Your task to perform on an android device: turn off improve location accuracy Image 0: 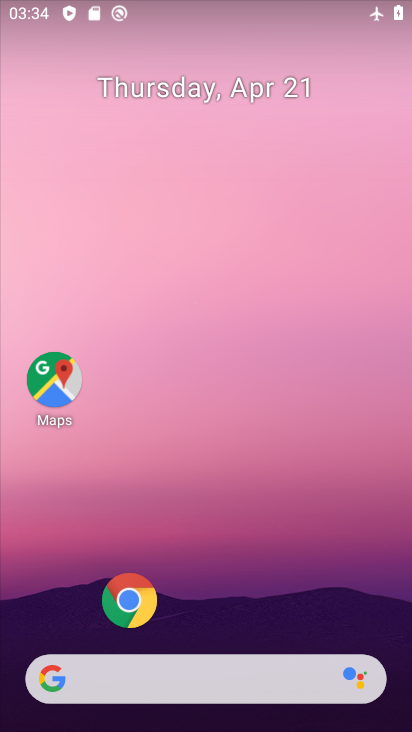
Step 0: drag from (229, 535) to (209, 159)
Your task to perform on an android device: turn off improve location accuracy Image 1: 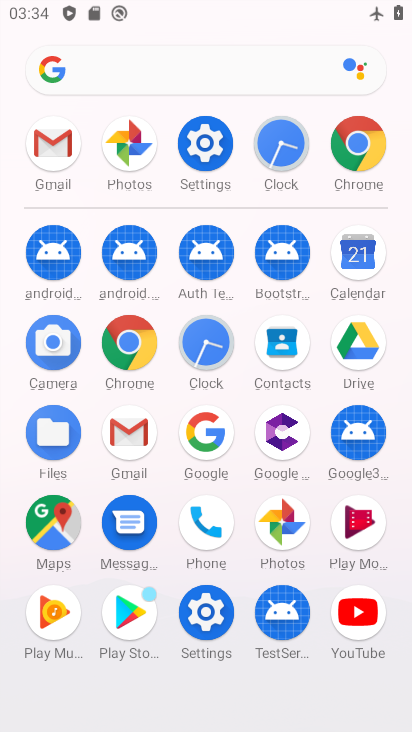
Step 1: click (201, 171)
Your task to perform on an android device: turn off improve location accuracy Image 2: 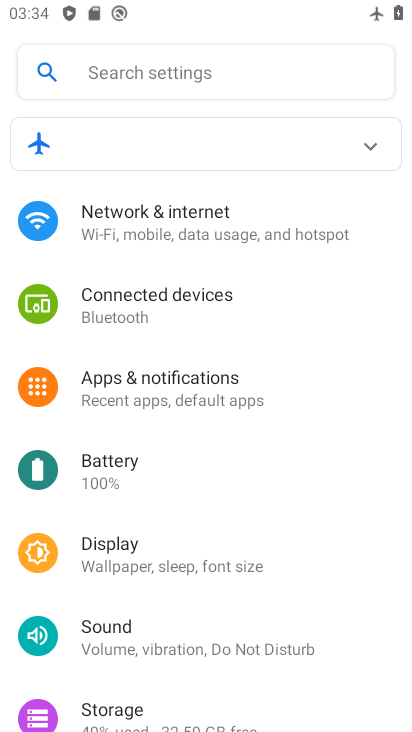
Step 2: drag from (178, 522) to (217, 231)
Your task to perform on an android device: turn off improve location accuracy Image 3: 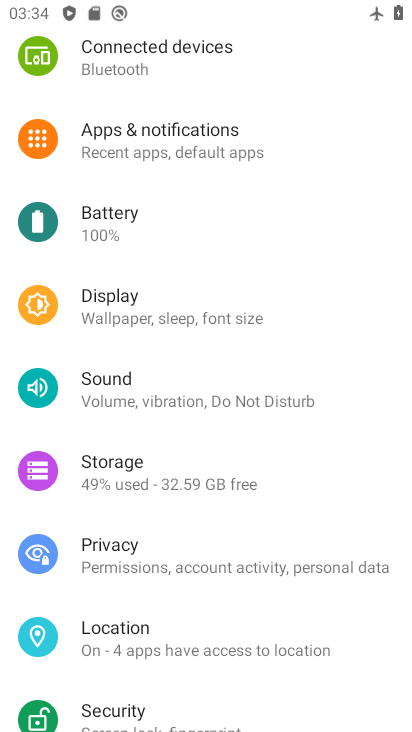
Step 3: click (172, 644)
Your task to perform on an android device: turn off improve location accuracy Image 4: 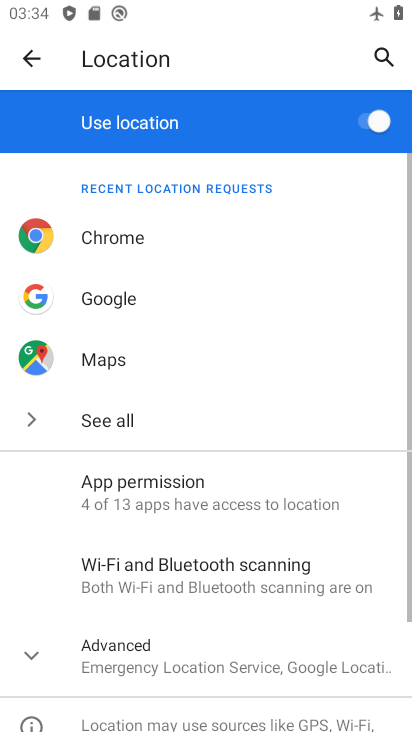
Step 4: drag from (175, 613) to (230, 316)
Your task to perform on an android device: turn off improve location accuracy Image 5: 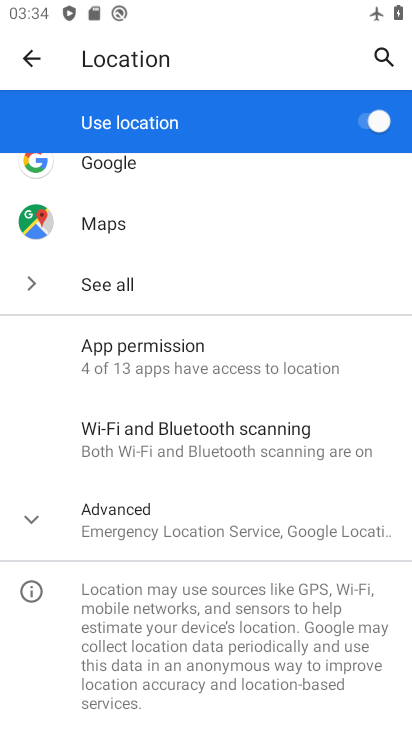
Step 5: click (169, 522)
Your task to perform on an android device: turn off improve location accuracy Image 6: 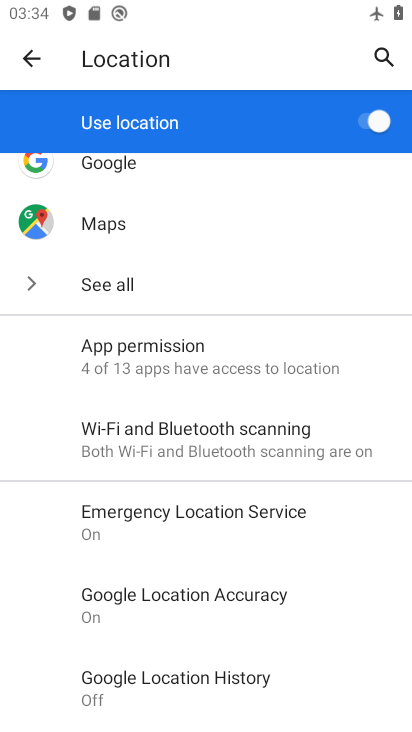
Step 6: click (244, 612)
Your task to perform on an android device: turn off improve location accuracy Image 7: 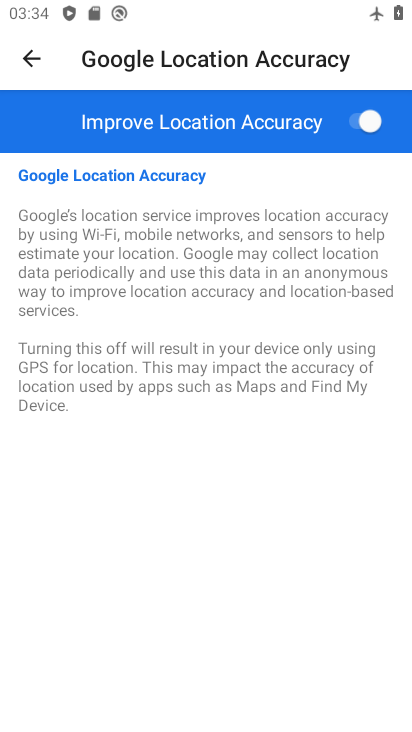
Step 7: click (366, 117)
Your task to perform on an android device: turn off improve location accuracy Image 8: 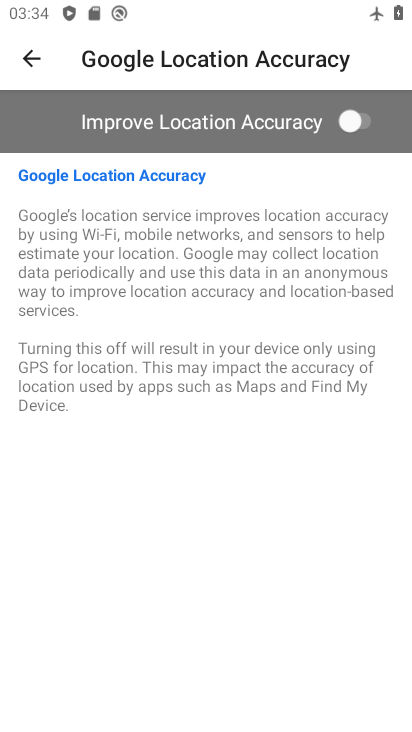
Step 8: task complete